Your task to perform on an android device: show emergency info Image 0: 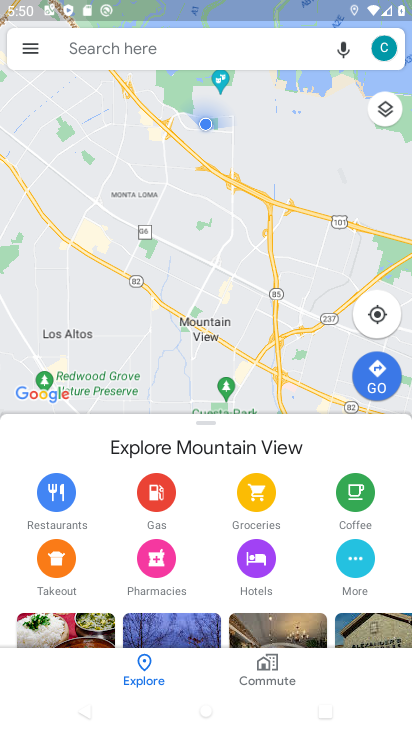
Step 0: press home button
Your task to perform on an android device: show emergency info Image 1: 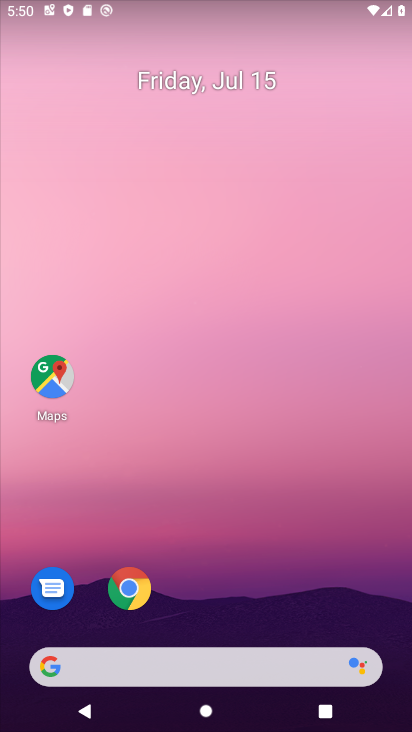
Step 1: drag from (275, 658) to (272, 39)
Your task to perform on an android device: show emergency info Image 2: 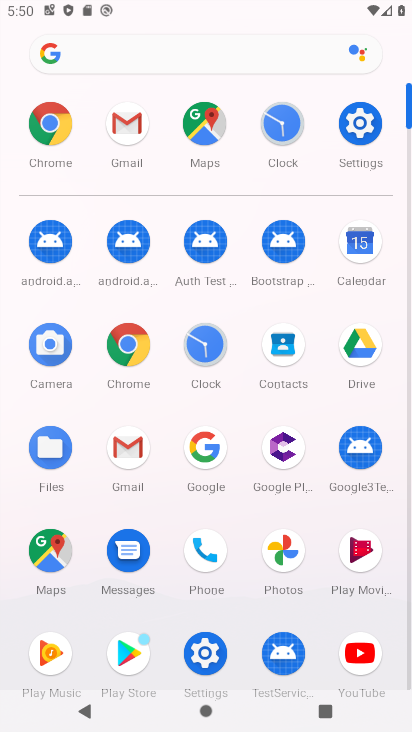
Step 2: click (351, 124)
Your task to perform on an android device: show emergency info Image 3: 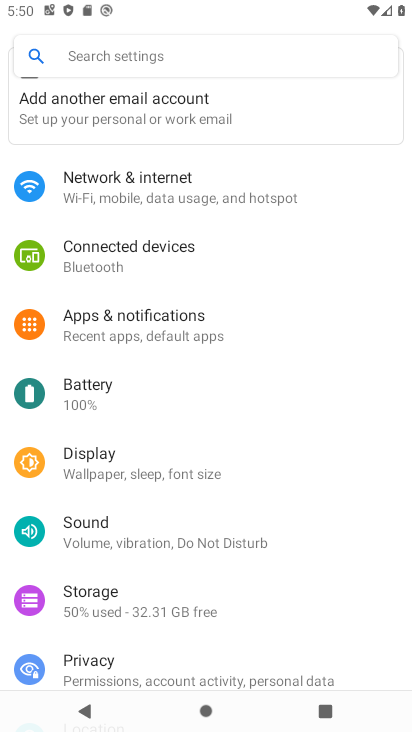
Step 3: drag from (158, 646) to (189, 56)
Your task to perform on an android device: show emergency info Image 4: 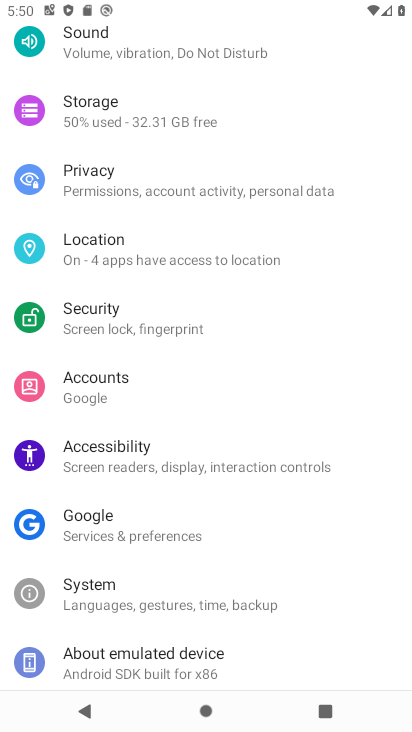
Step 4: click (171, 662)
Your task to perform on an android device: show emergency info Image 5: 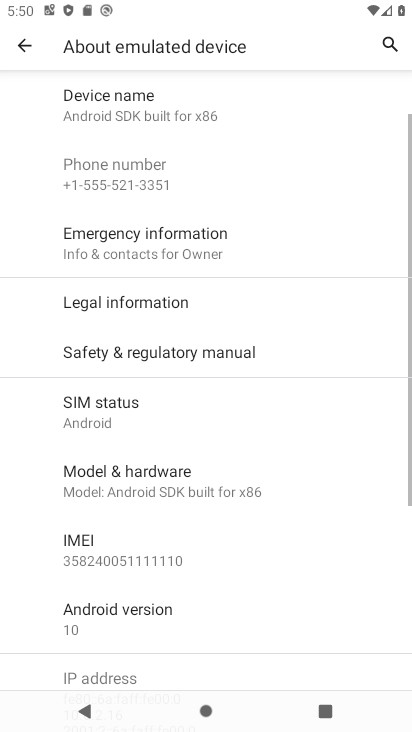
Step 5: click (166, 247)
Your task to perform on an android device: show emergency info Image 6: 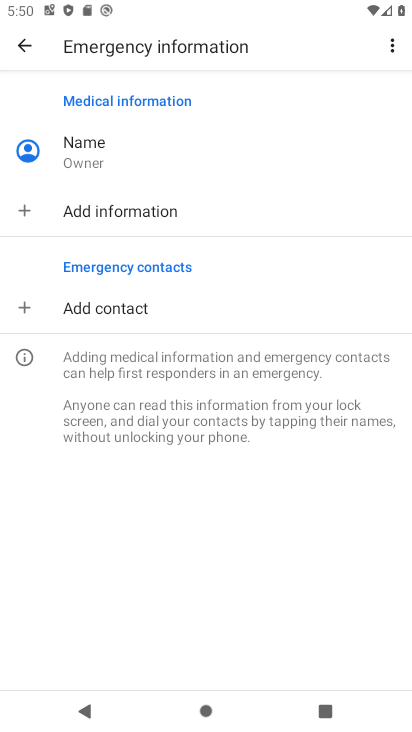
Step 6: task complete